Your task to perform on an android device: turn off smart reply in the gmail app Image 0: 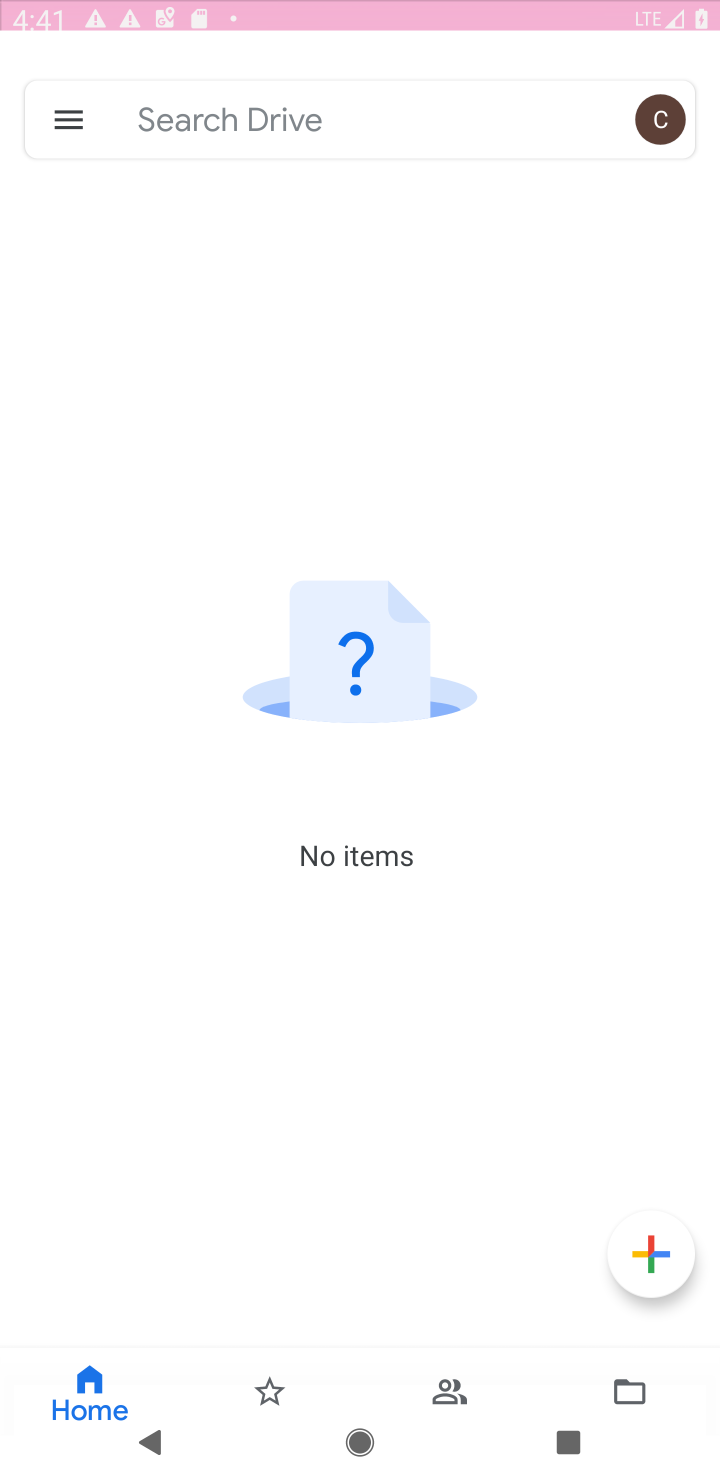
Step 0: press home button
Your task to perform on an android device: turn off smart reply in the gmail app Image 1: 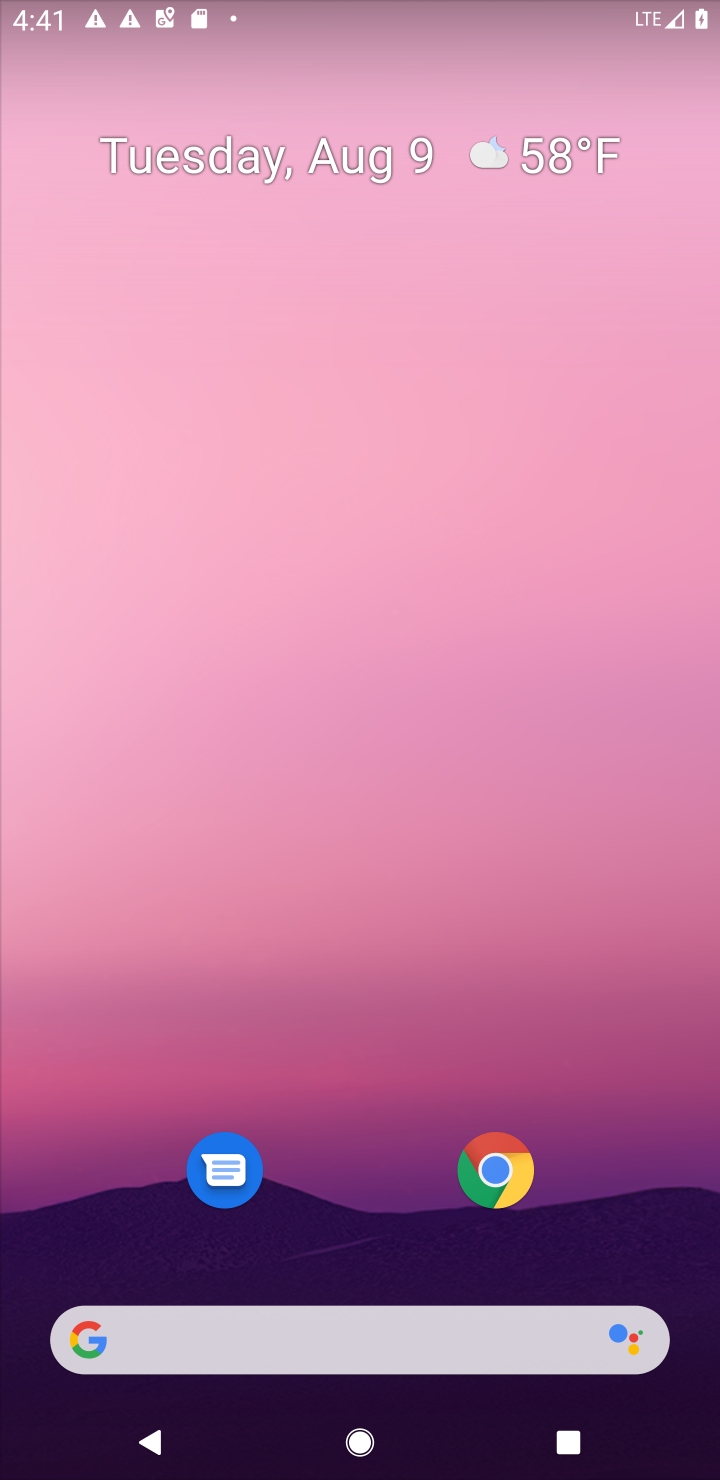
Step 1: drag from (382, 1121) to (150, 1)
Your task to perform on an android device: turn off smart reply in the gmail app Image 2: 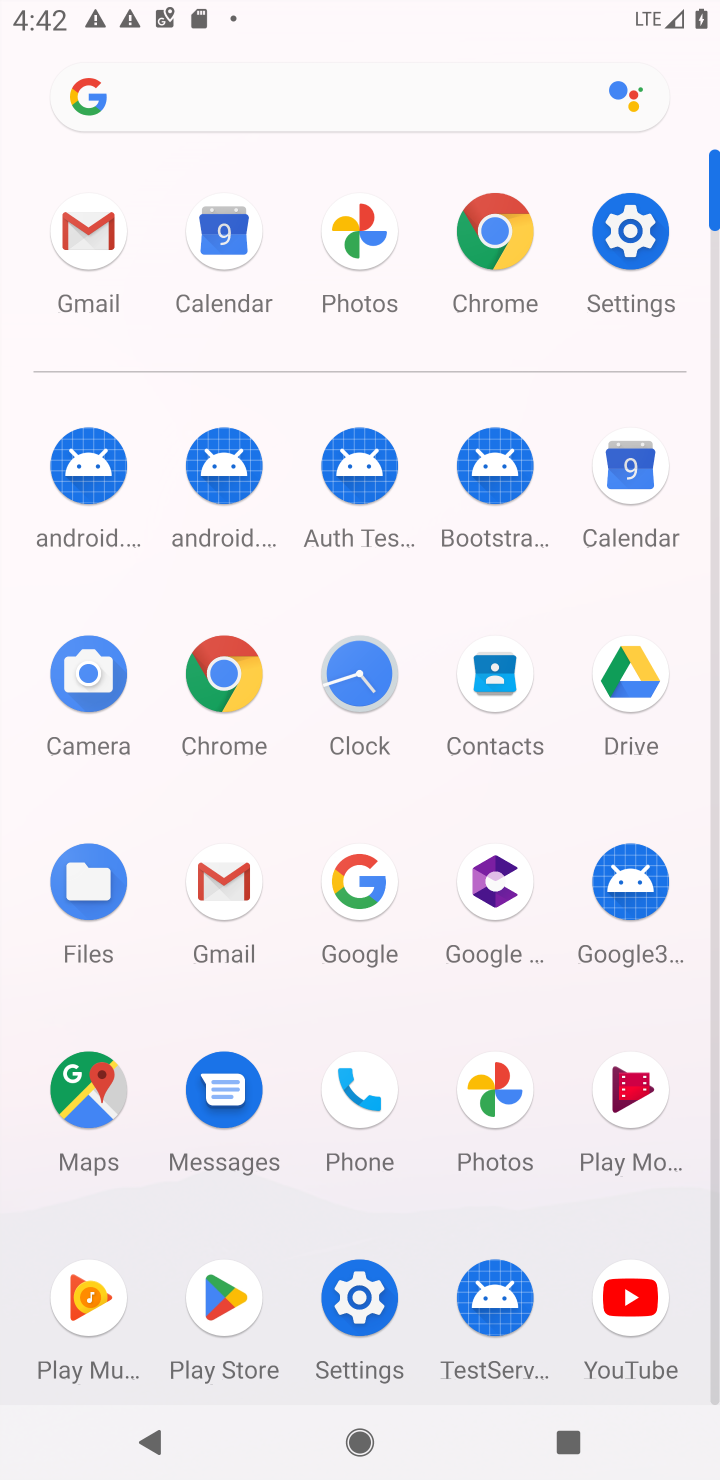
Step 2: click (79, 244)
Your task to perform on an android device: turn off smart reply in the gmail app Image 3: 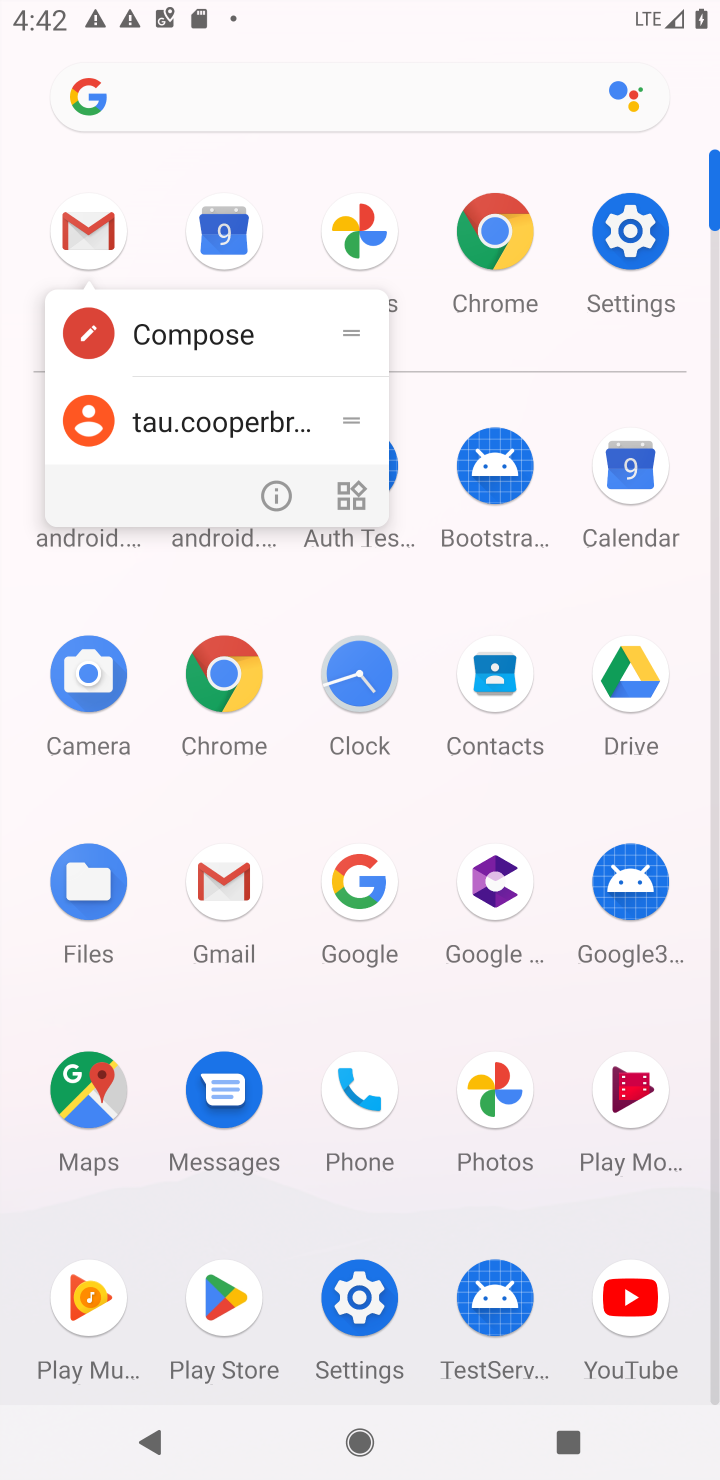
Step 3: click (92, 220)
Your task to perform on an android device: turn off smart reply in the gmail app Image 4: 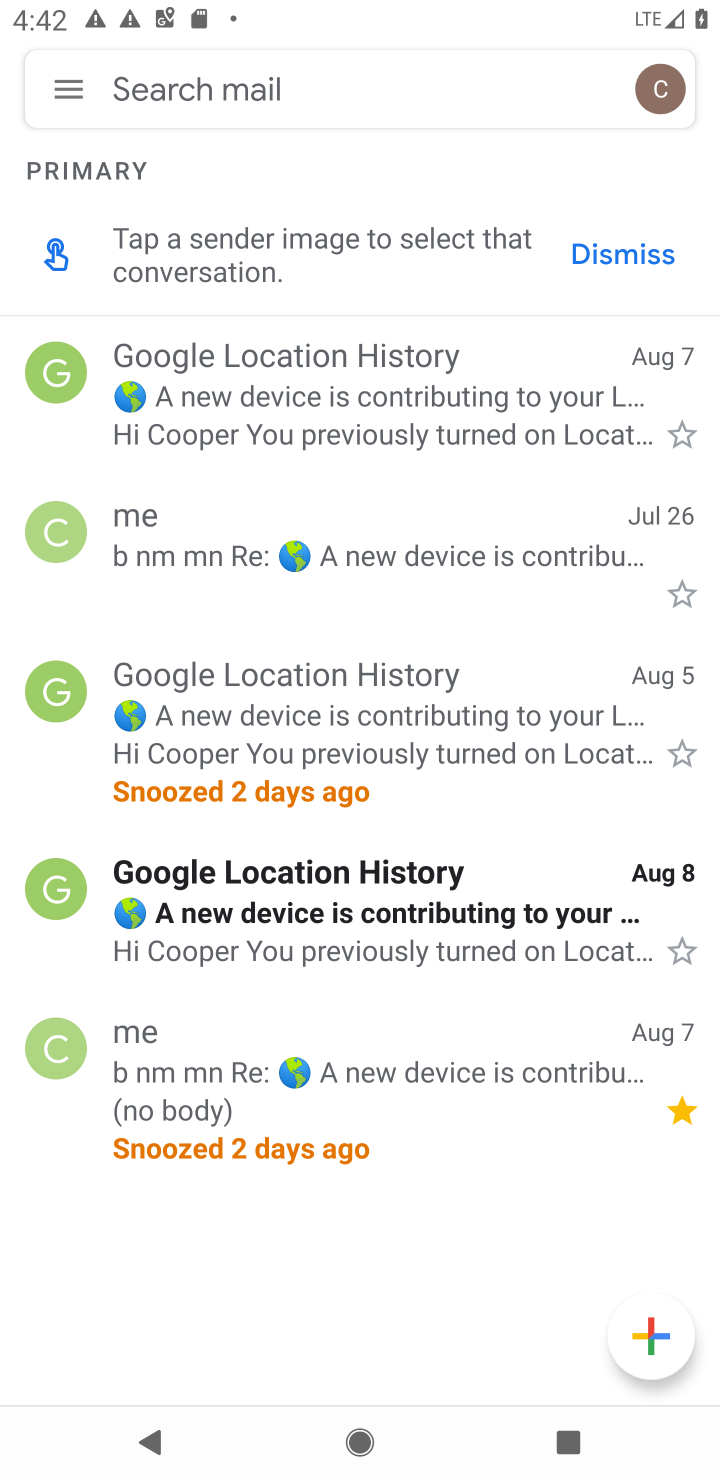
Step 4: click (658, 99)
Your task to perform on an android device: turn off smart reply in the gmail app Image 5: 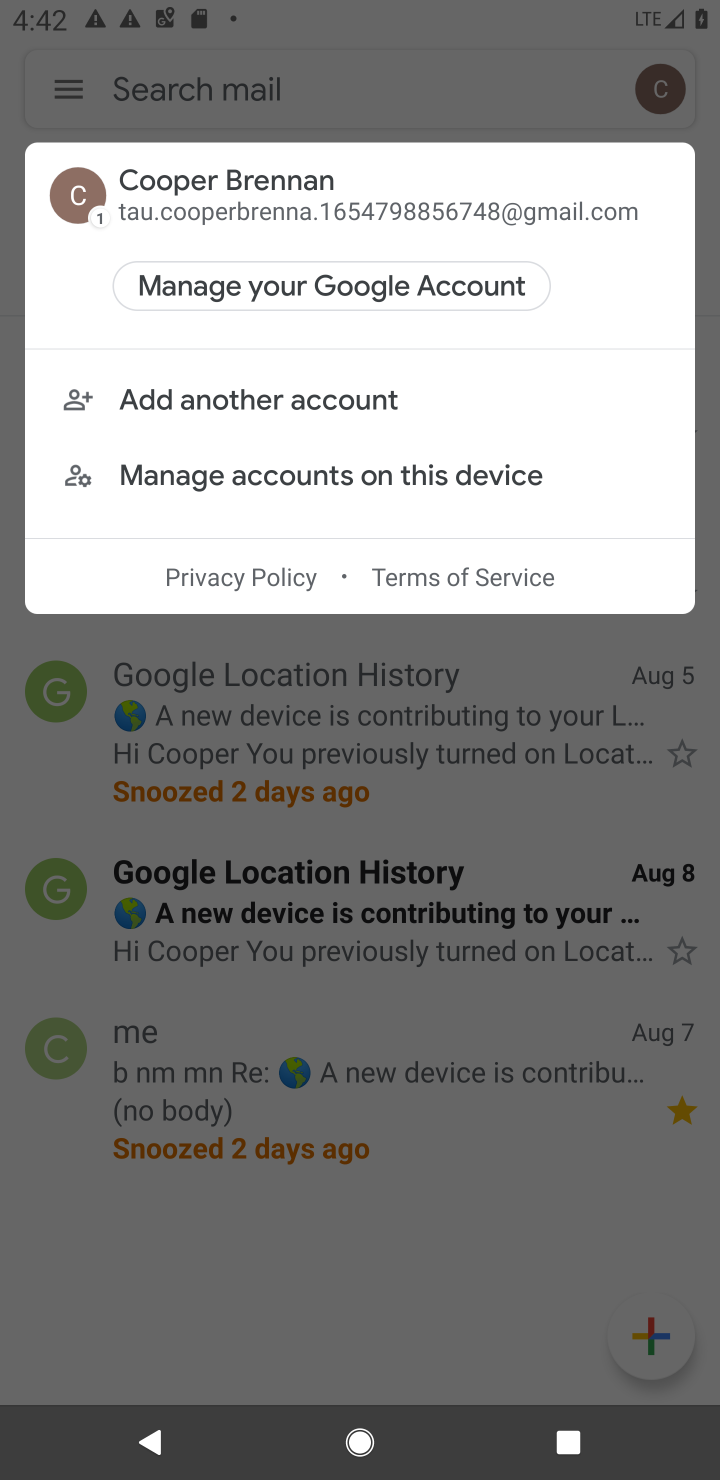
Step 5: click (63, 89)
Your task to perform on an android device: turn off smart reply in the gmail app Image 6: 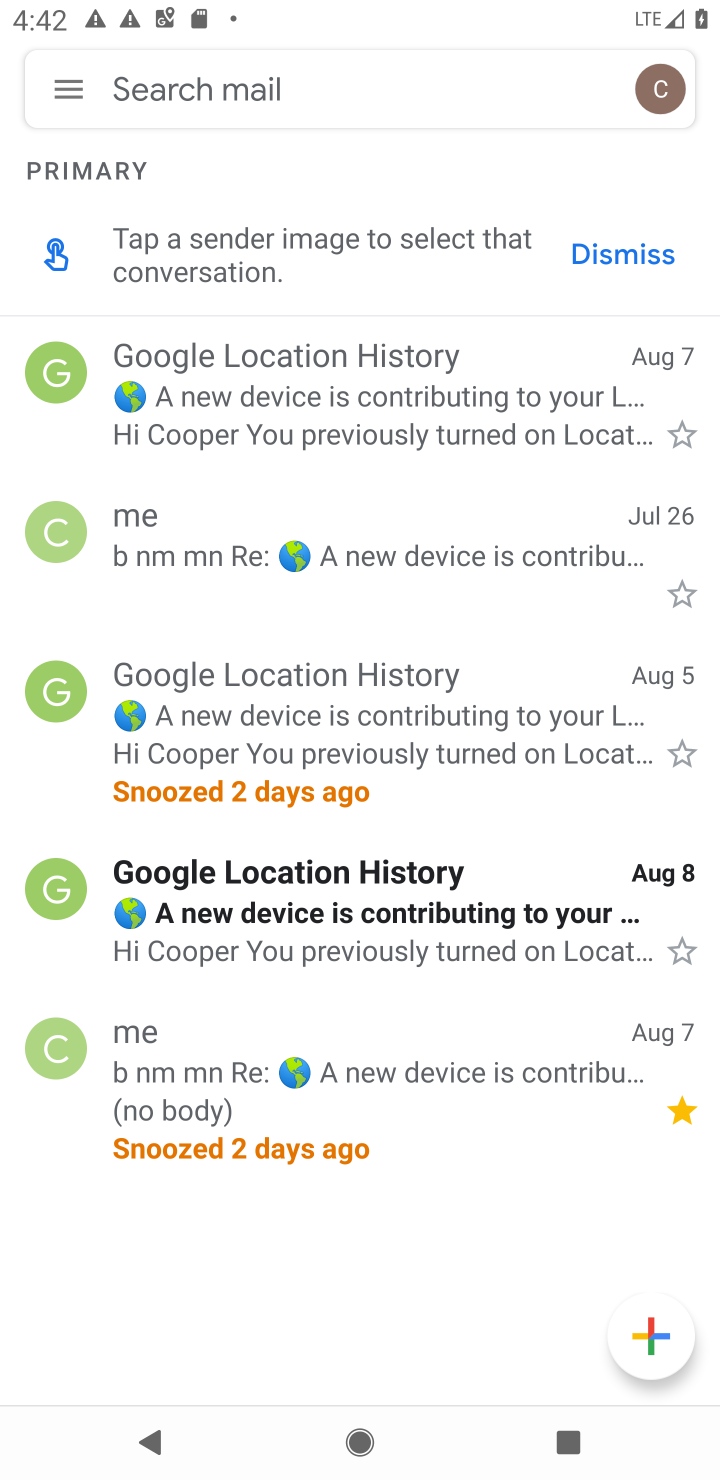
Step 6: click (75, 88)
Your task to perform on an android device: turn off smart reply in the gmail app Image 7: 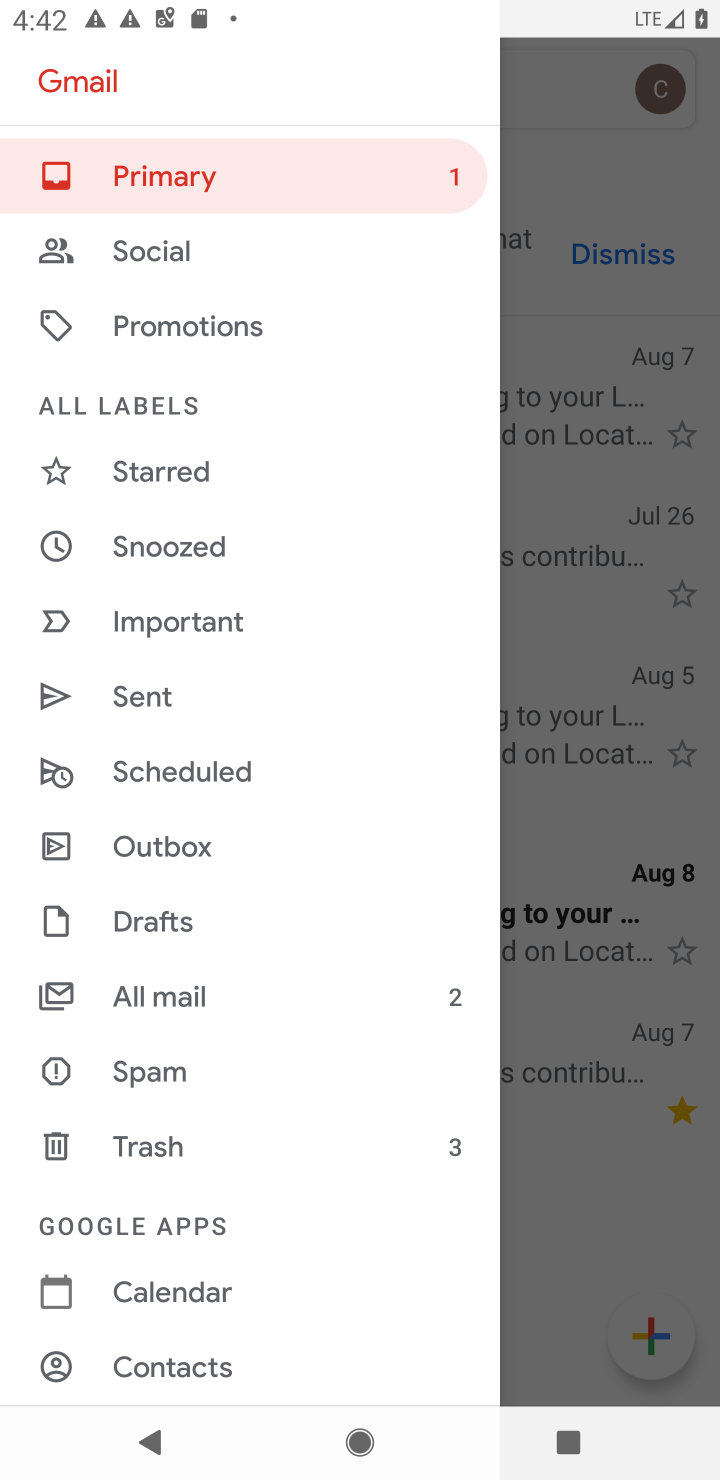
Step 7: drag from (303, 1220) to (280, 403)
Your task to perform on an android device: turn off smart reply in the gmail app Image 8: 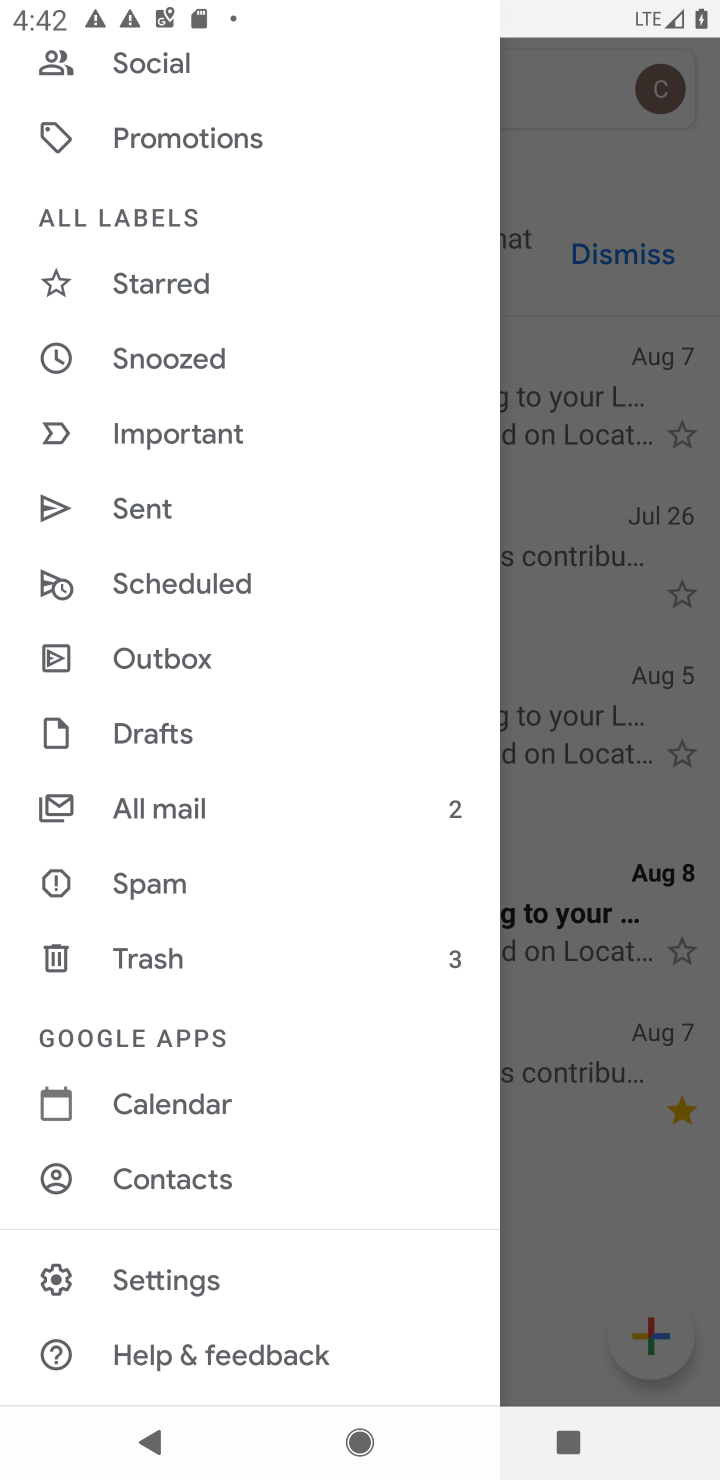
Step 8: click (206, 1279)
Your task to perform on an android device: turn off smart reply in the gmail app Image 9: 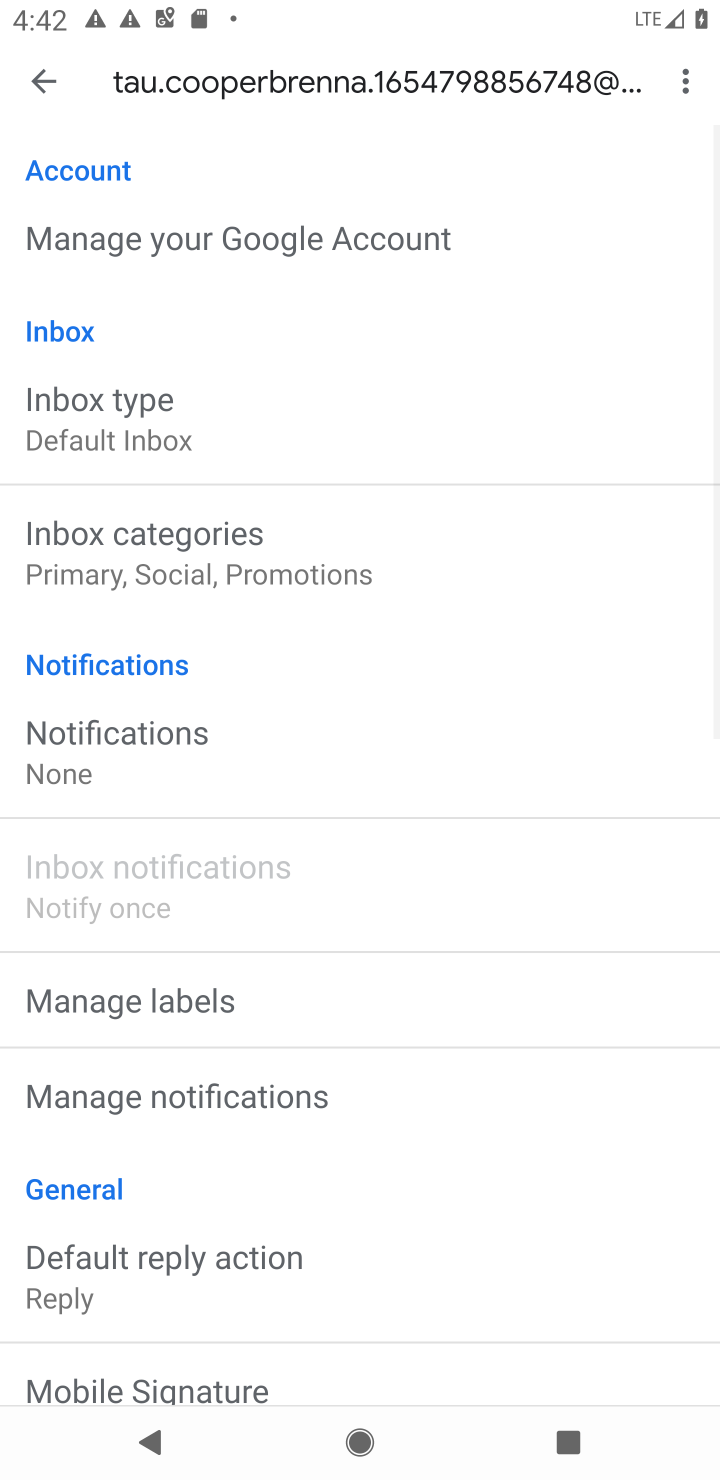
Step 9: drag from (194, 1194) to (229, 422)
Your task to perform on an android device: turn off smart reply in the gmail app Image 10: 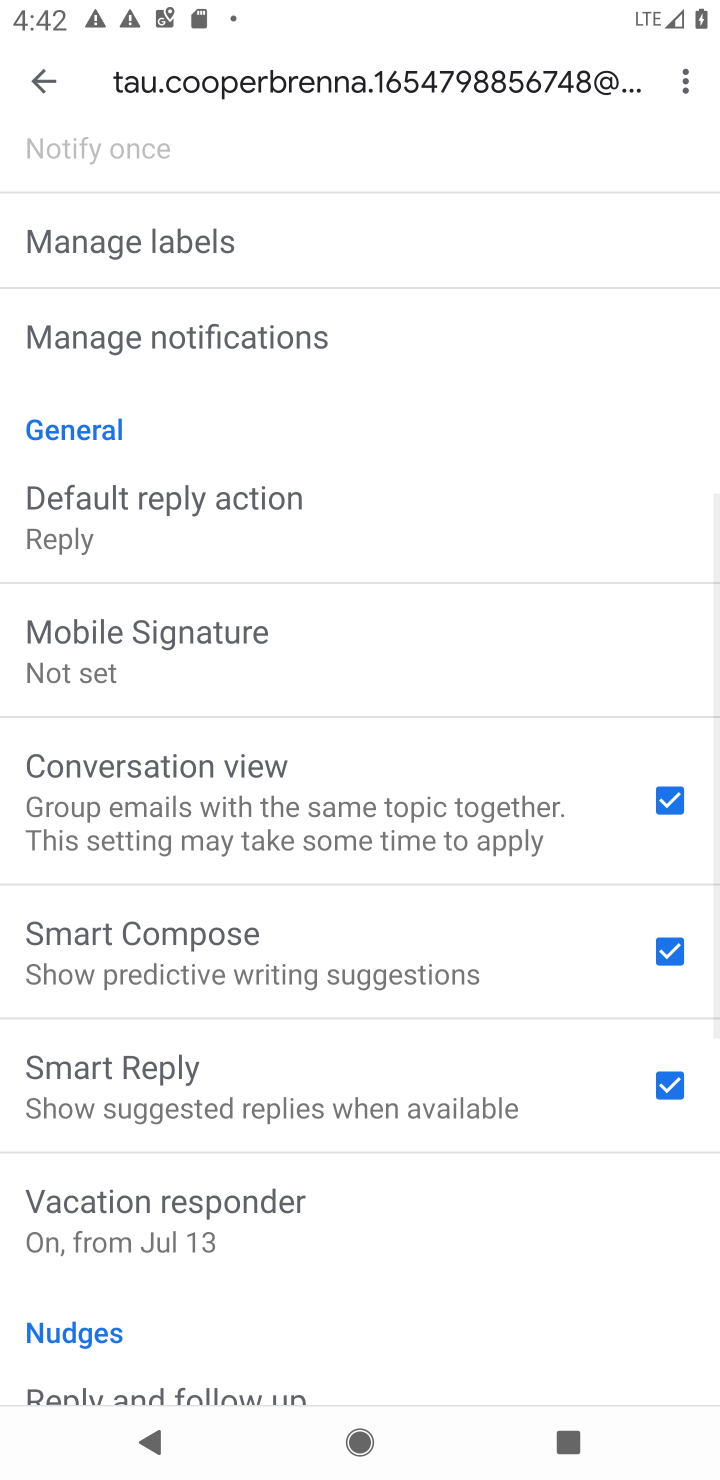
Step 10: drag from (206, 1353) to (277, 283)
Your task to perform on an android device: turn off smart reply in the gmail app Image 11: 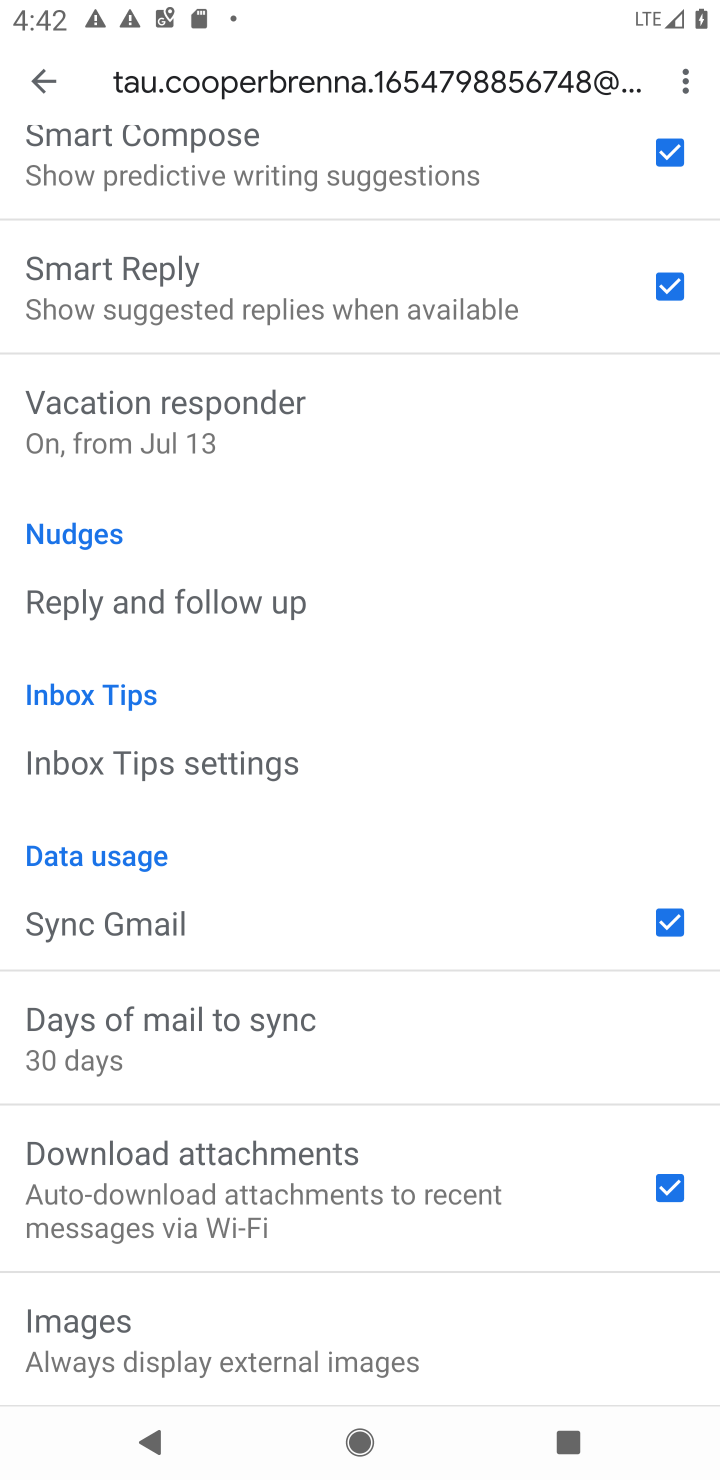
Step 11: click (680, 289)
Your task to perform on an android device: turn off smart reply in the gmail app Image 12: 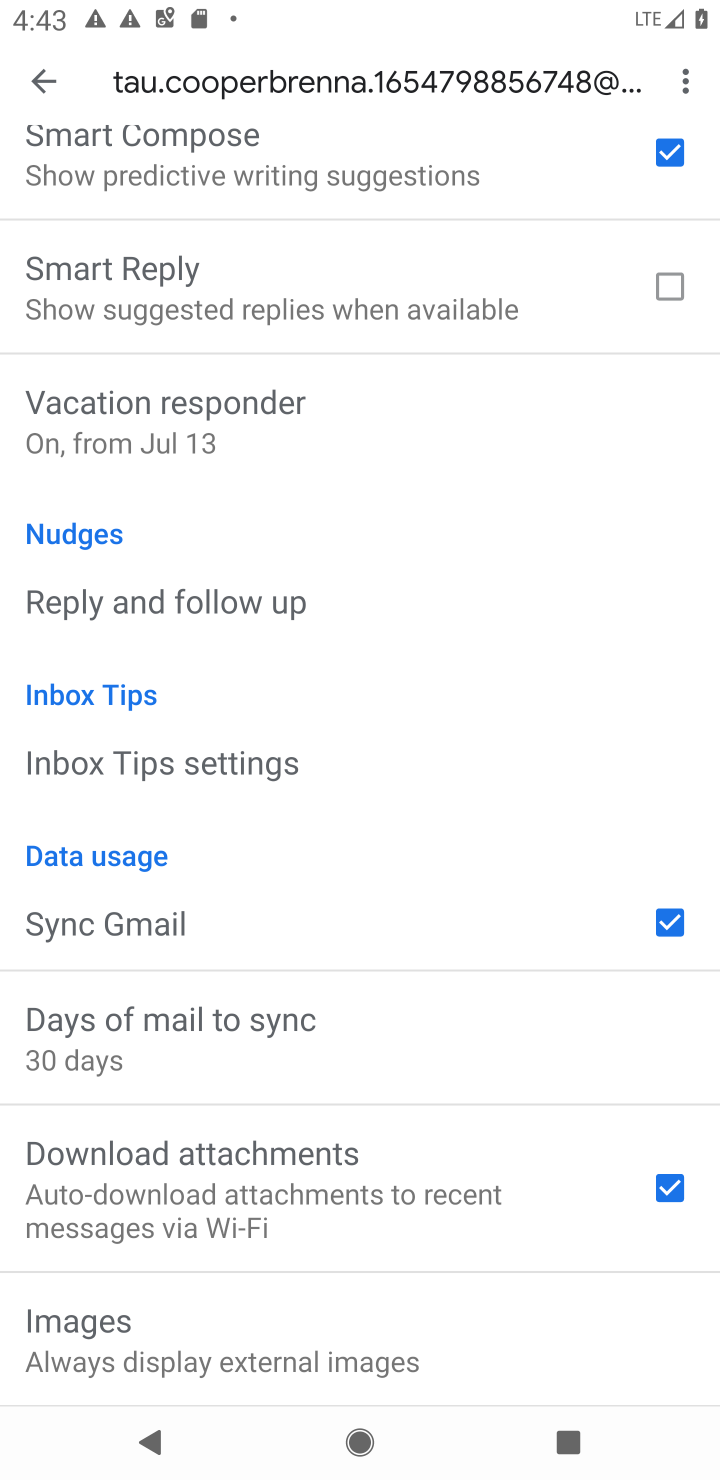
Step 12: task complete